Your task to perform on an android device: turn on javascript in the chrome app Image 0: 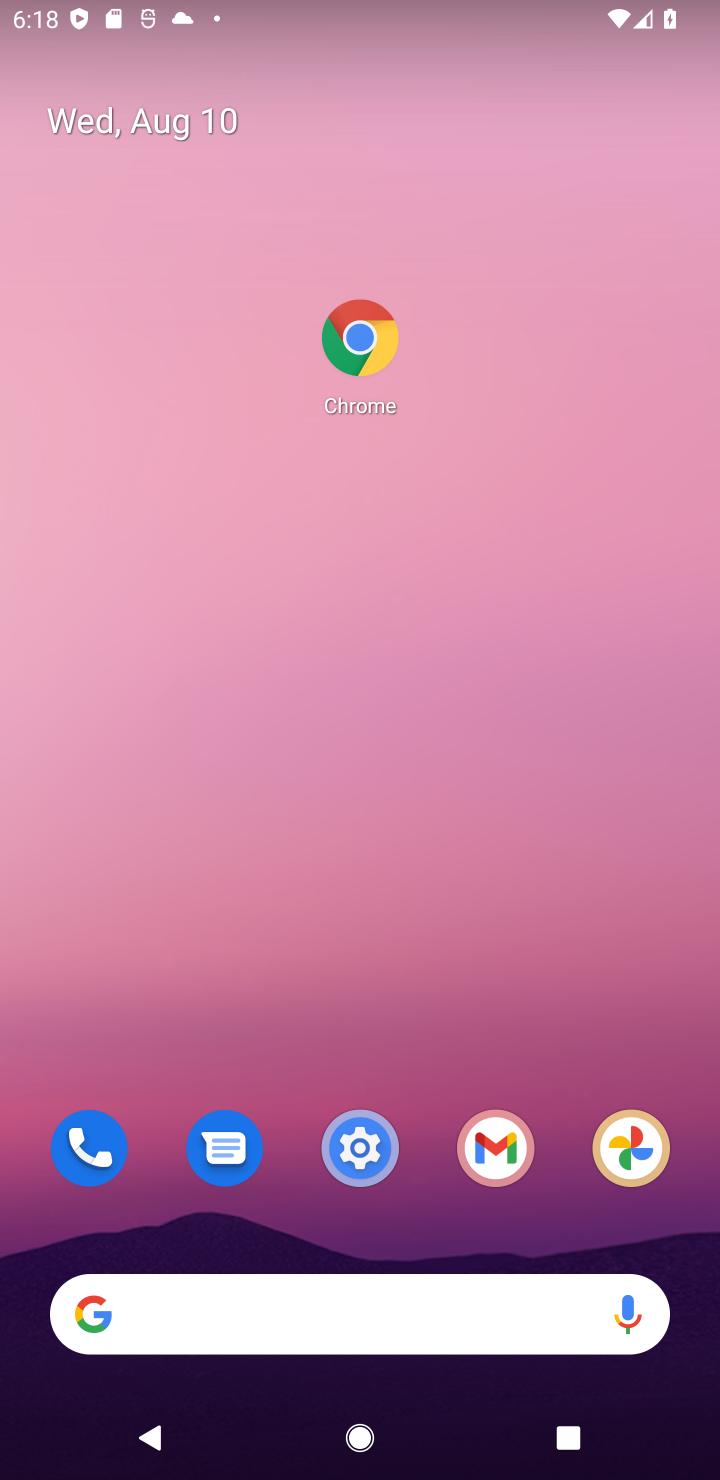
Step 0: click (345, 339)
Your task to perform on an android device: turn on javascript in the chrome app Image 1: 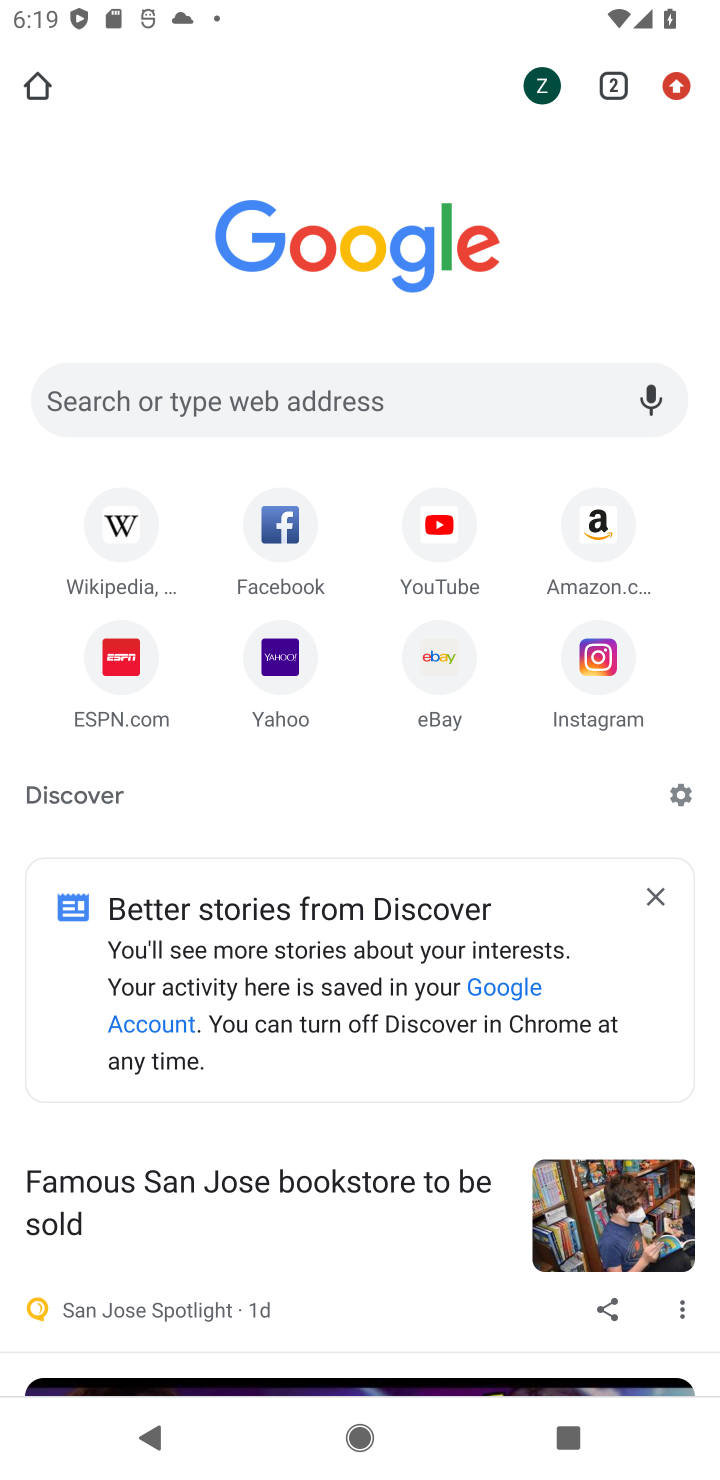
Step 1: click (662, 86)
Your task to perform on an android device: turn on javascript in the chrome app Image 2: 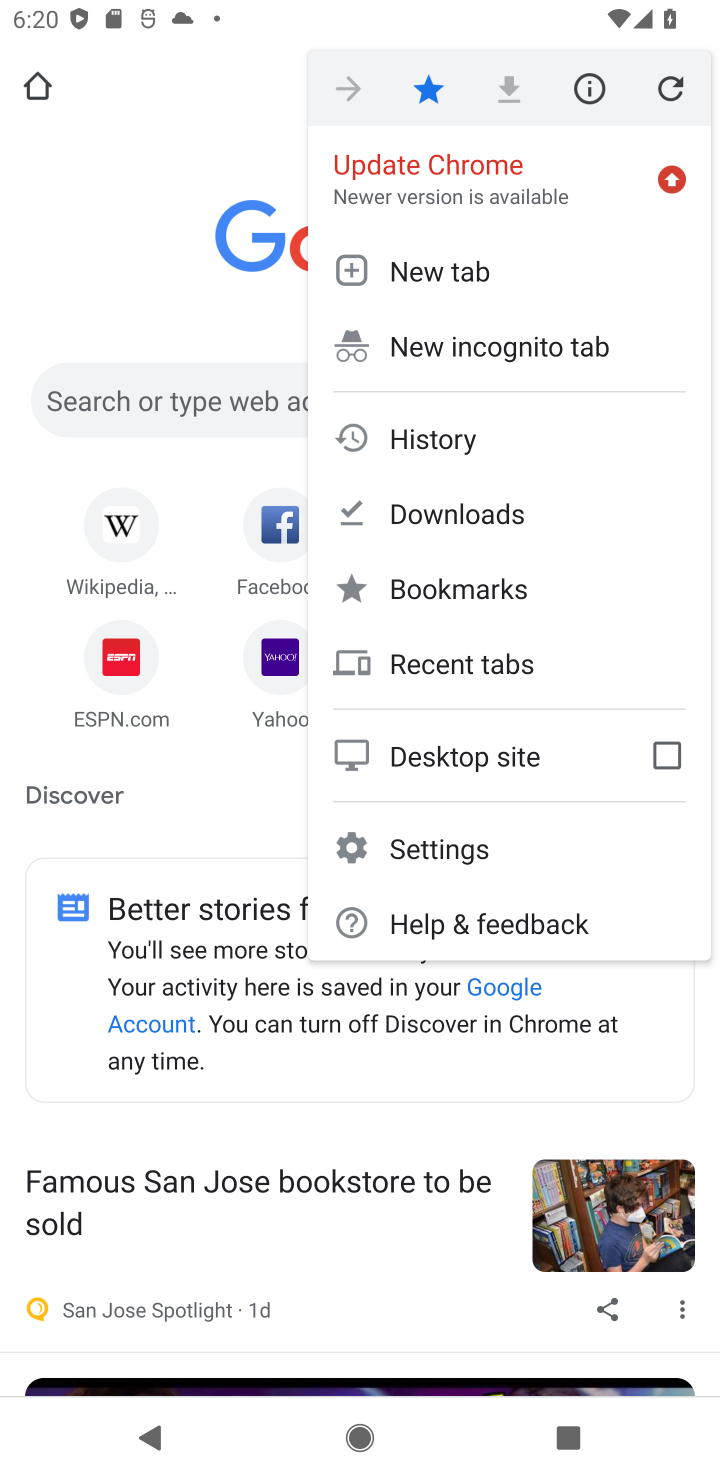
Step 2: click (418, 823)
Your task to perform on an android device: turn on javascript in the chrome app Image 3: 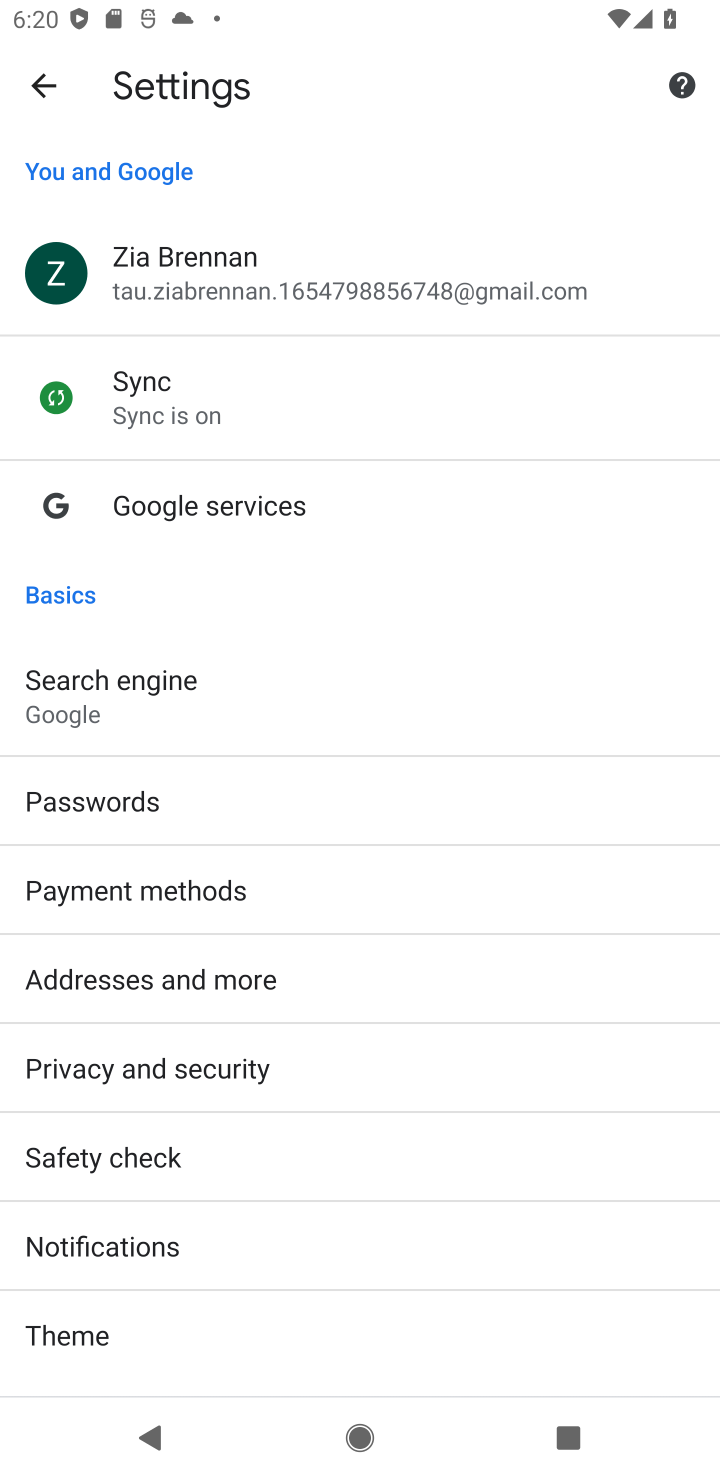
Step 3: drag from (379, 1035) to (352, 252)
Your task to perform on an android device: turn on javascript in the chrome app Image 4: 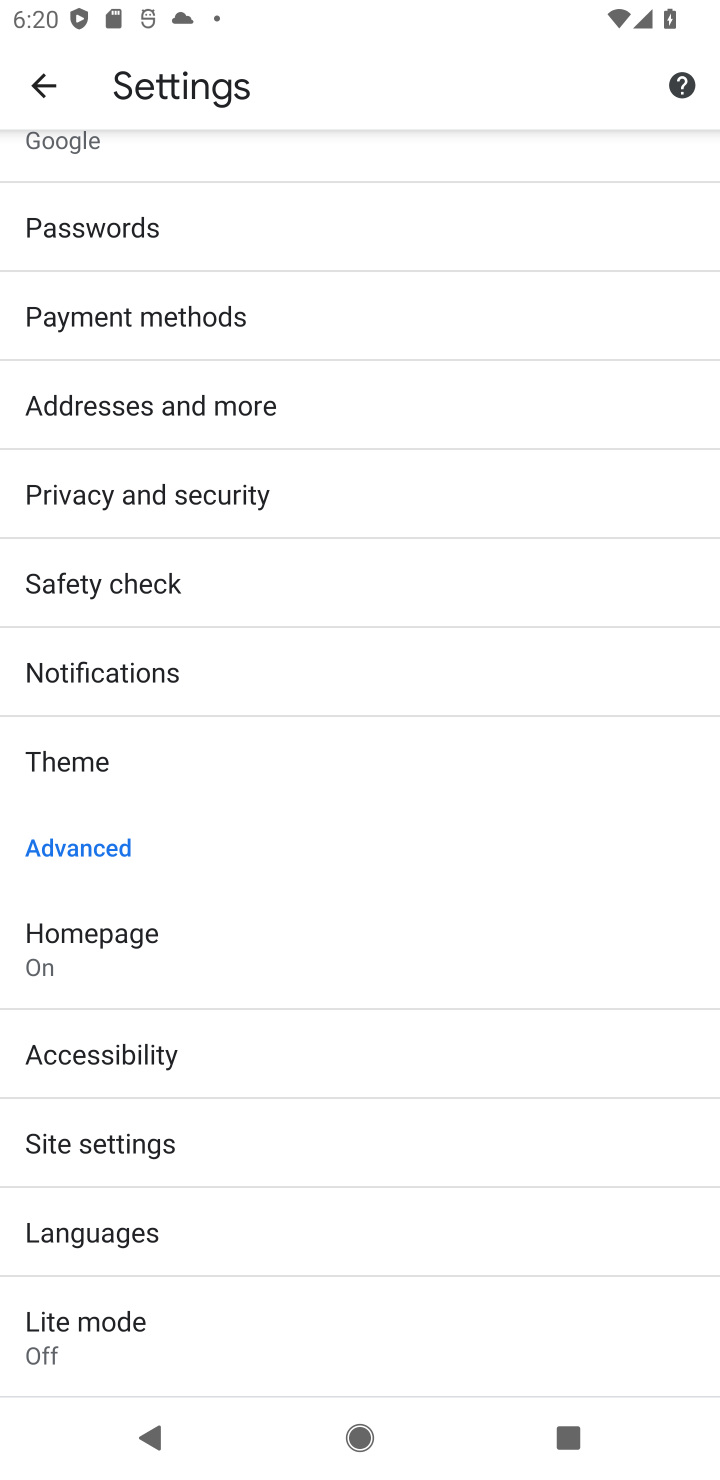
Step 4: click (73, 1131)
Your task to perform on an android device: turn on javascript in the chrome app Image 5: 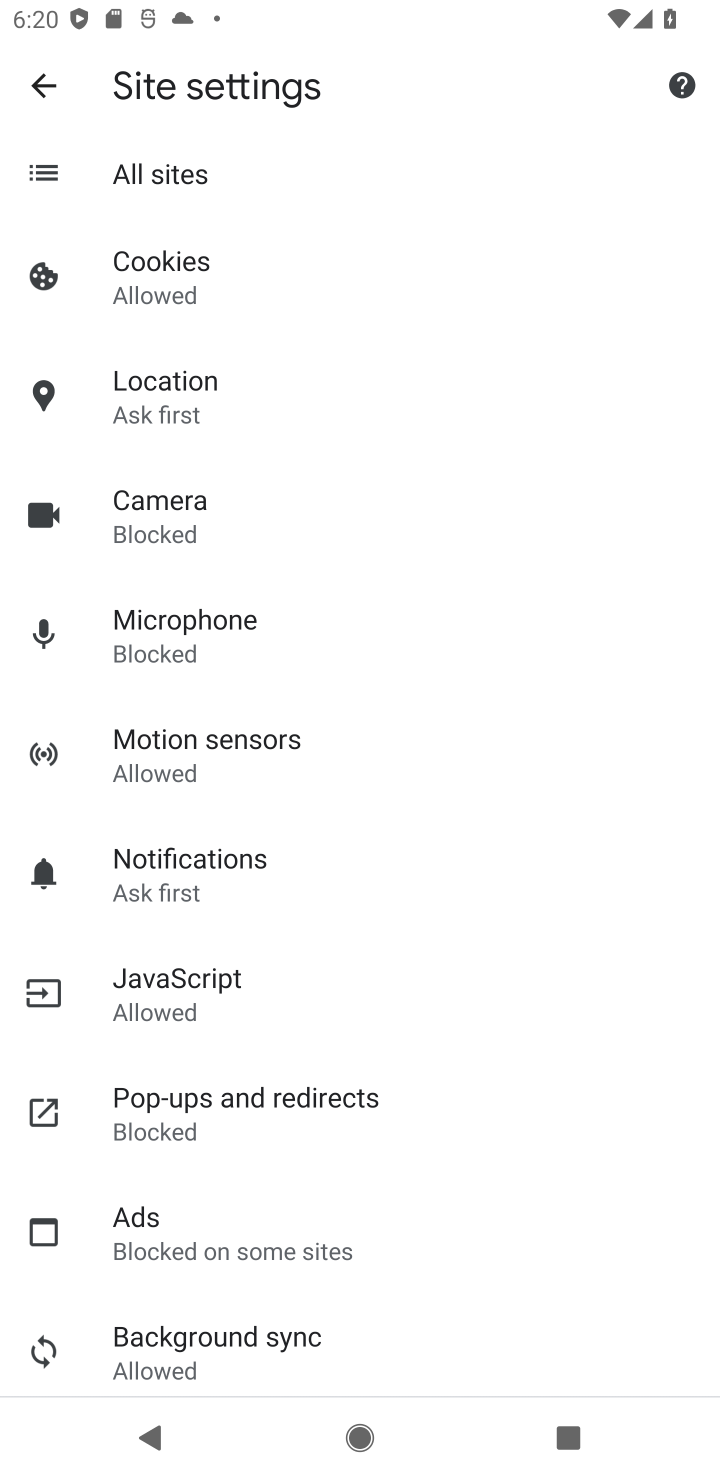
Step 5: click (148, 1015)
Your task to perform on an android device: turn on javascript in the chrome app Image 6: 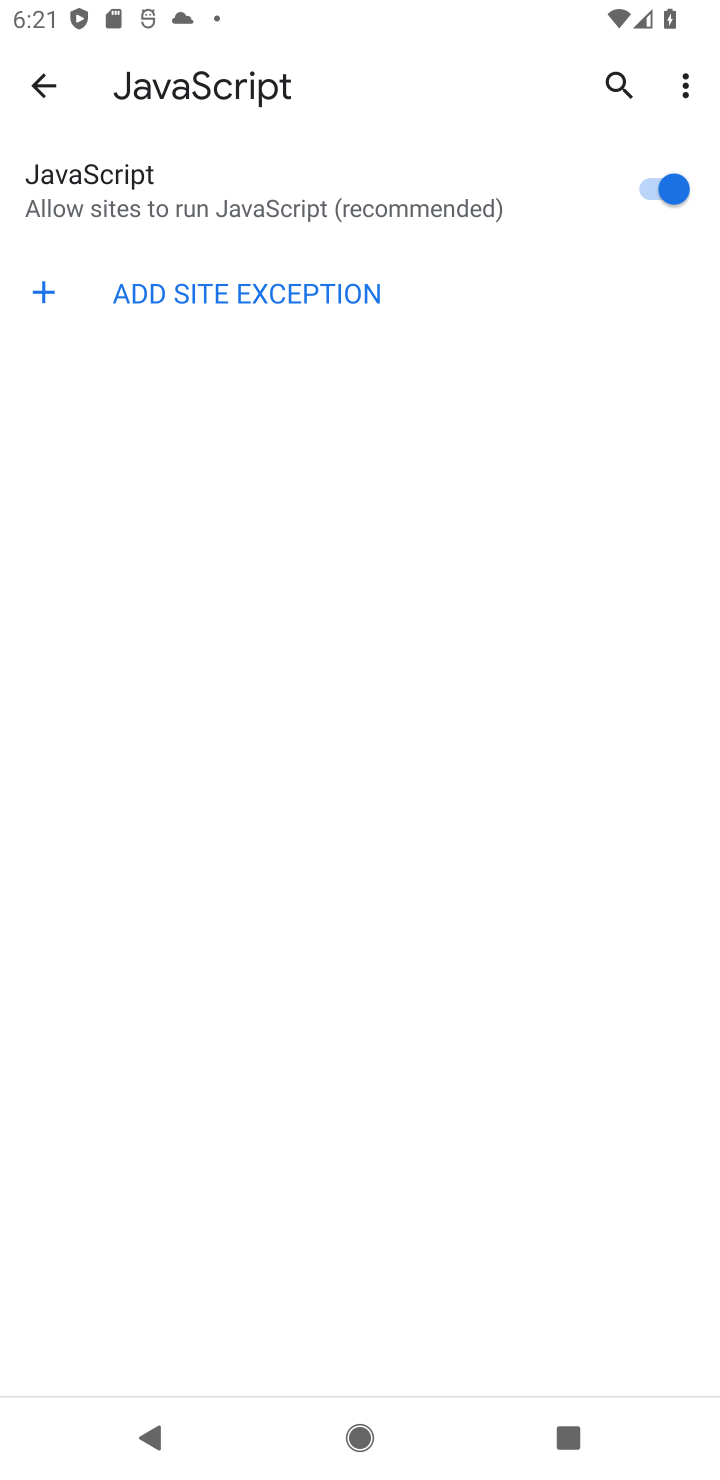
Step 6: task complete